Your task to perform on an android device: all mails in gmail Image 0: 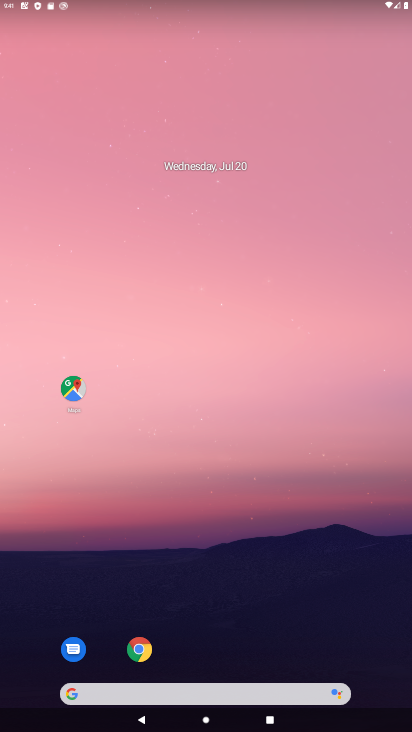
Step 0: drag from (215, 657) to (124, 176)
Your task to perform on an android device: all mails in gmail Image 1: 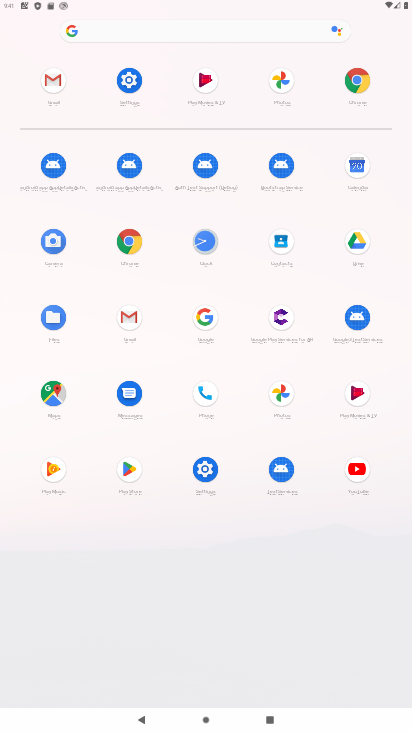
Step 1: click (48, 83)
Your task to perform on an android device: all mails in gmail Image 2: 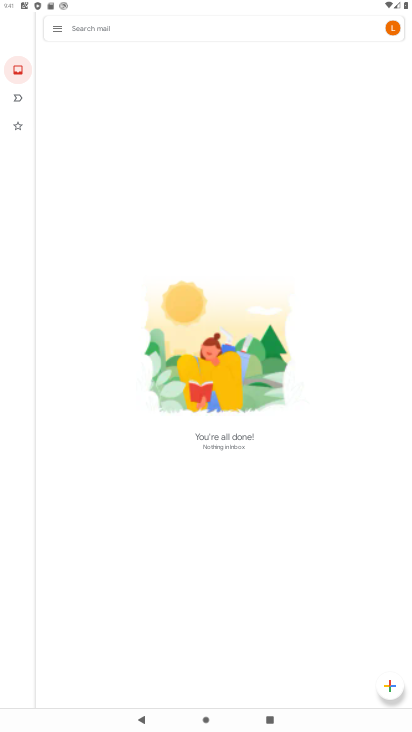
Step 2: task complete